Your task to perform on an android device: Search for good Italian restaurants Image 0: 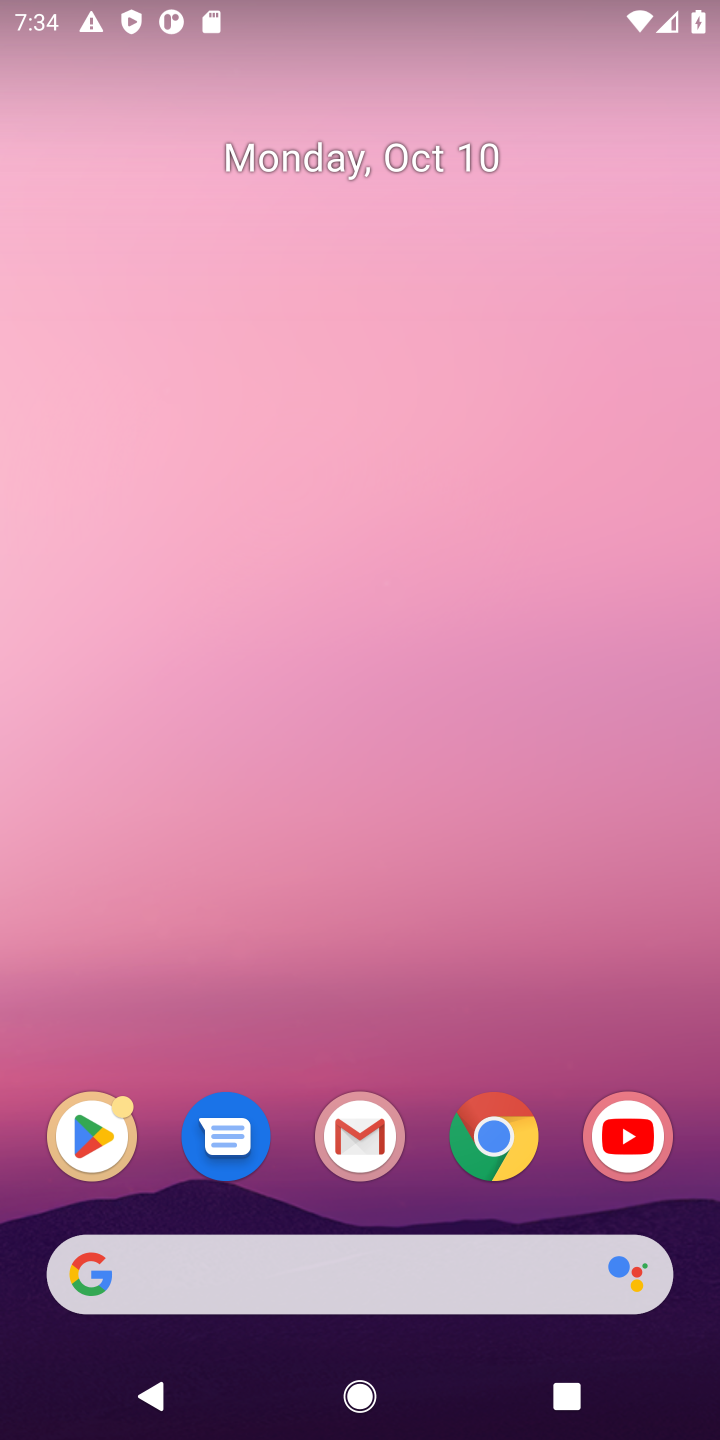
Step 0: drag from (379, 1109) to (316, 129)
Your task to perform on an android device: Search for good Italian restaurants Image 1: 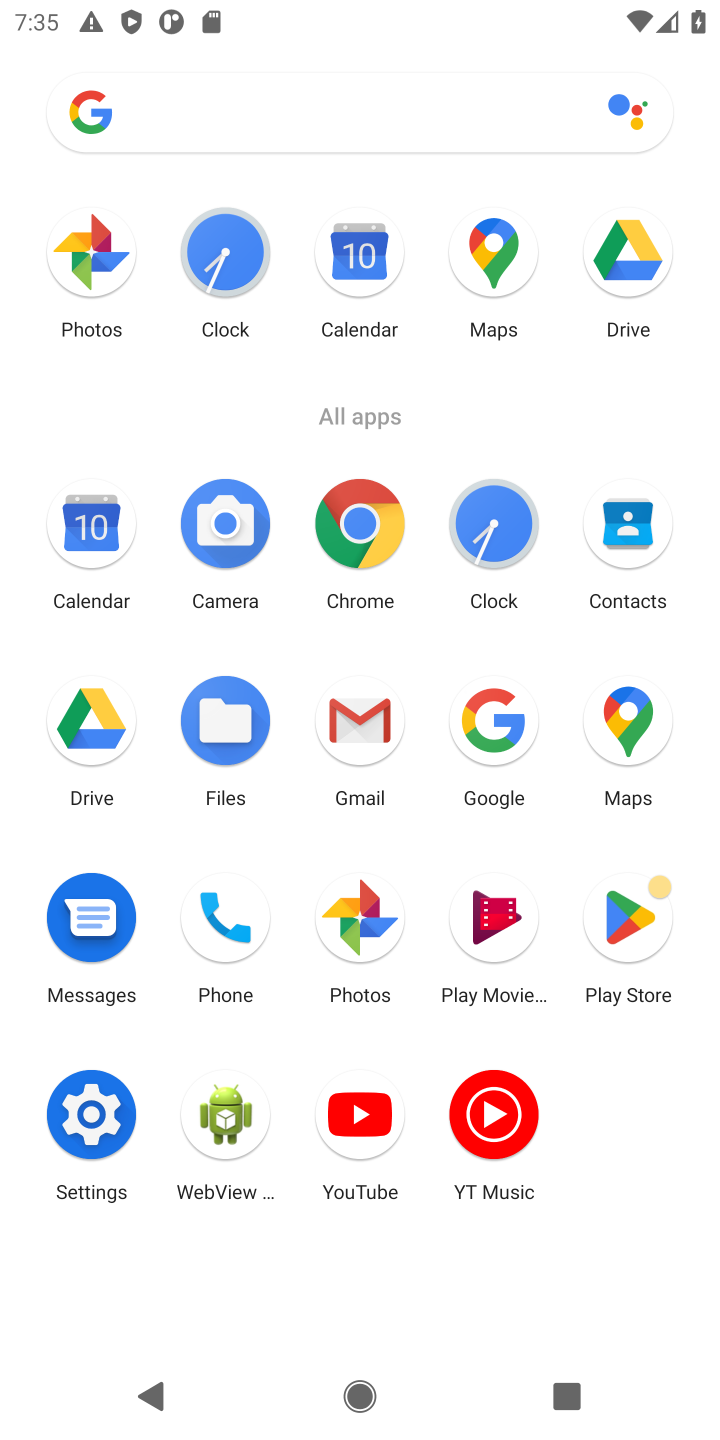
Step 1: click (498, 725)
Your task to perform on an android device: Search for good Italian restaurants Image 2: 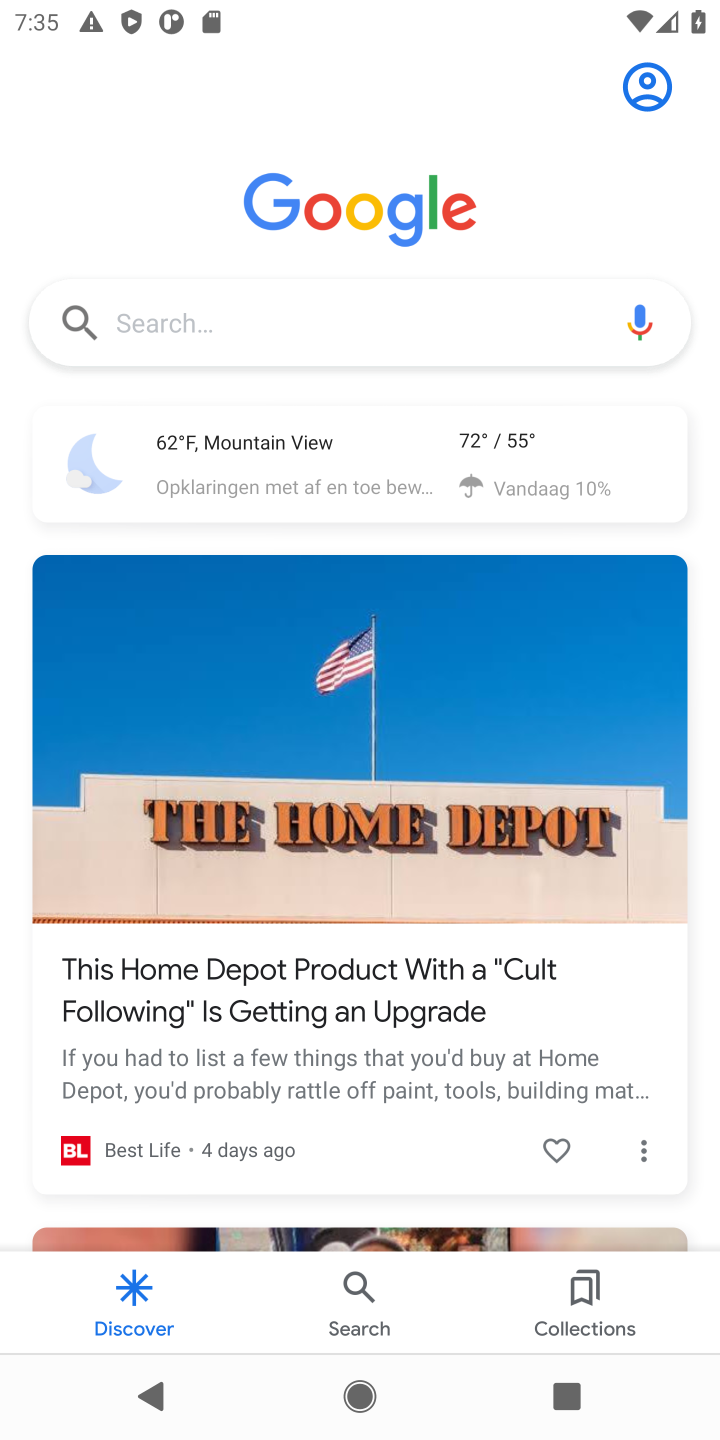
Step 2: click (325, 320)
Your task to perform on an android device: Search for good Italian restaurants Image 3: 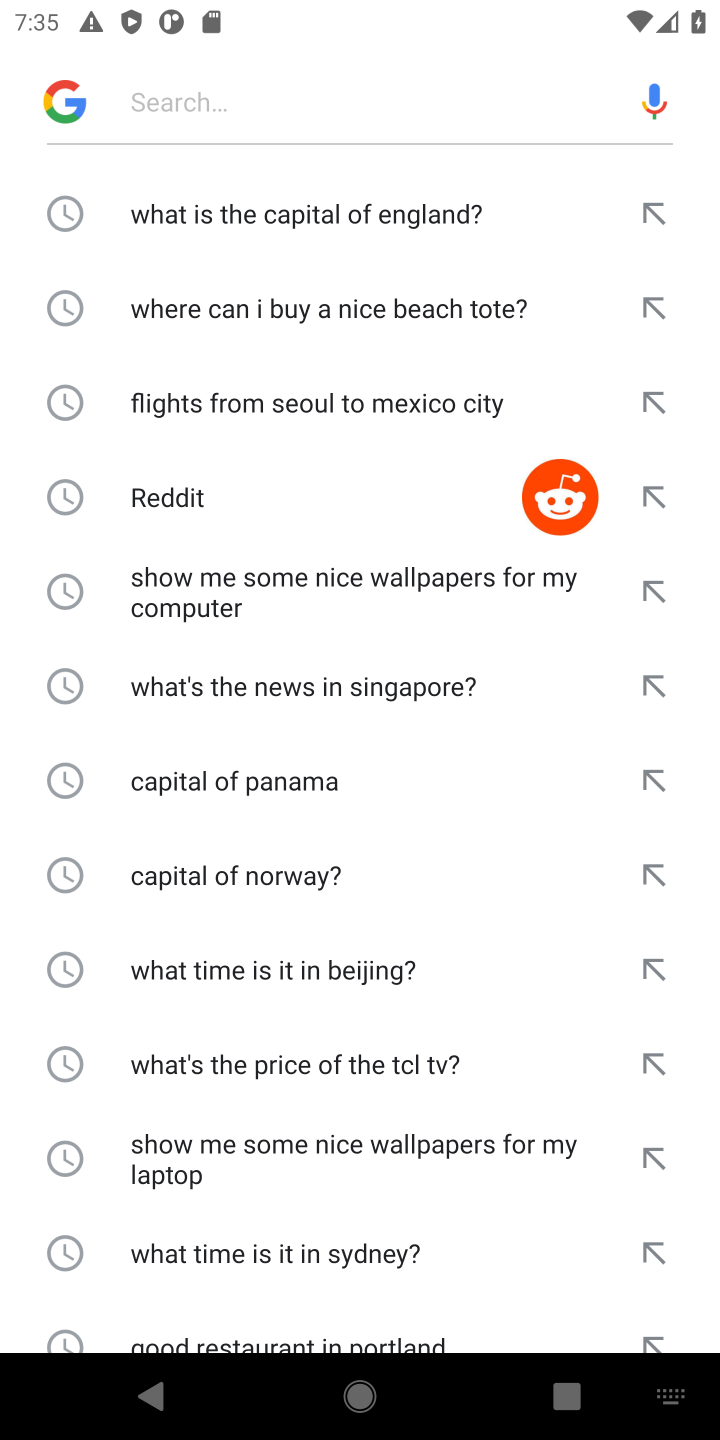
Step 3: type "good Italian restaurants"
Your task to perform on an android device: Search for good Italian restaurants Image 4: 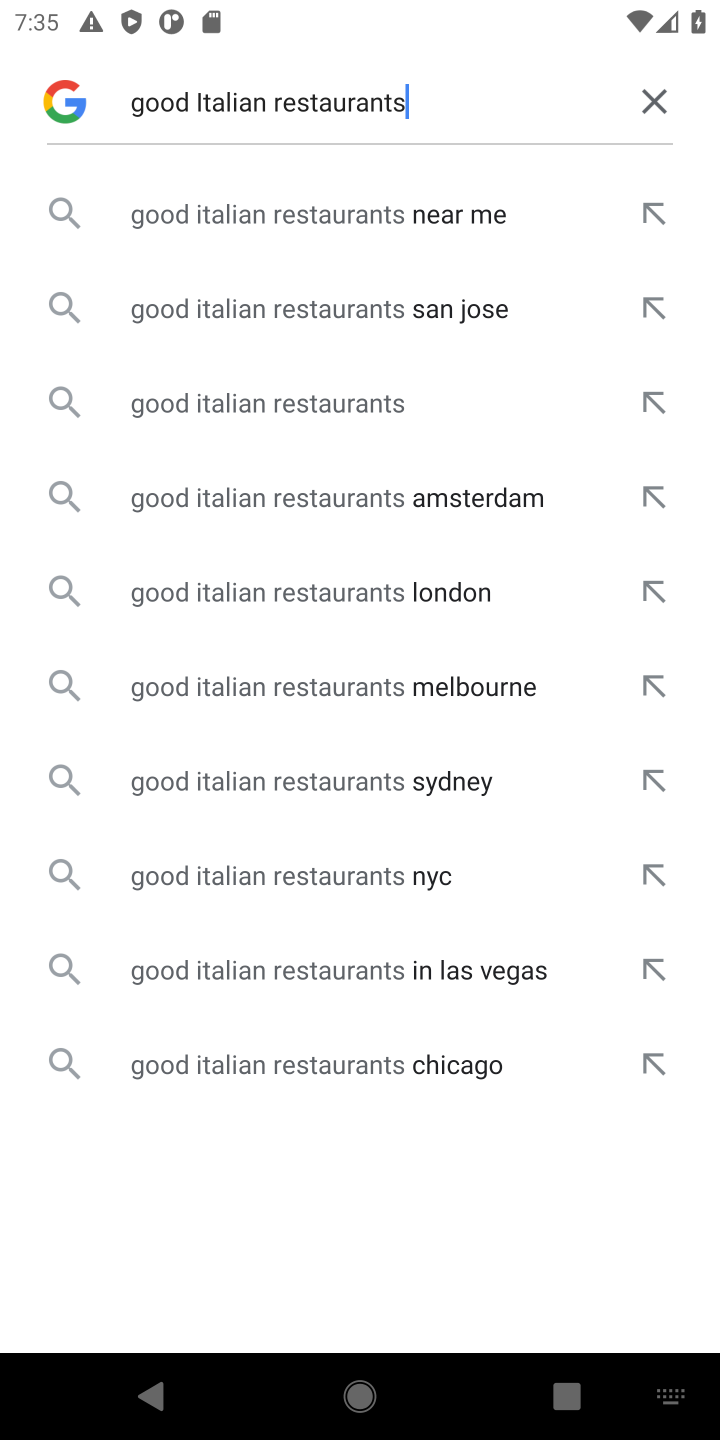
Step 4: click (273, 402)
Your task to perform on an android device: Search for good Italian restaurants Image 5: 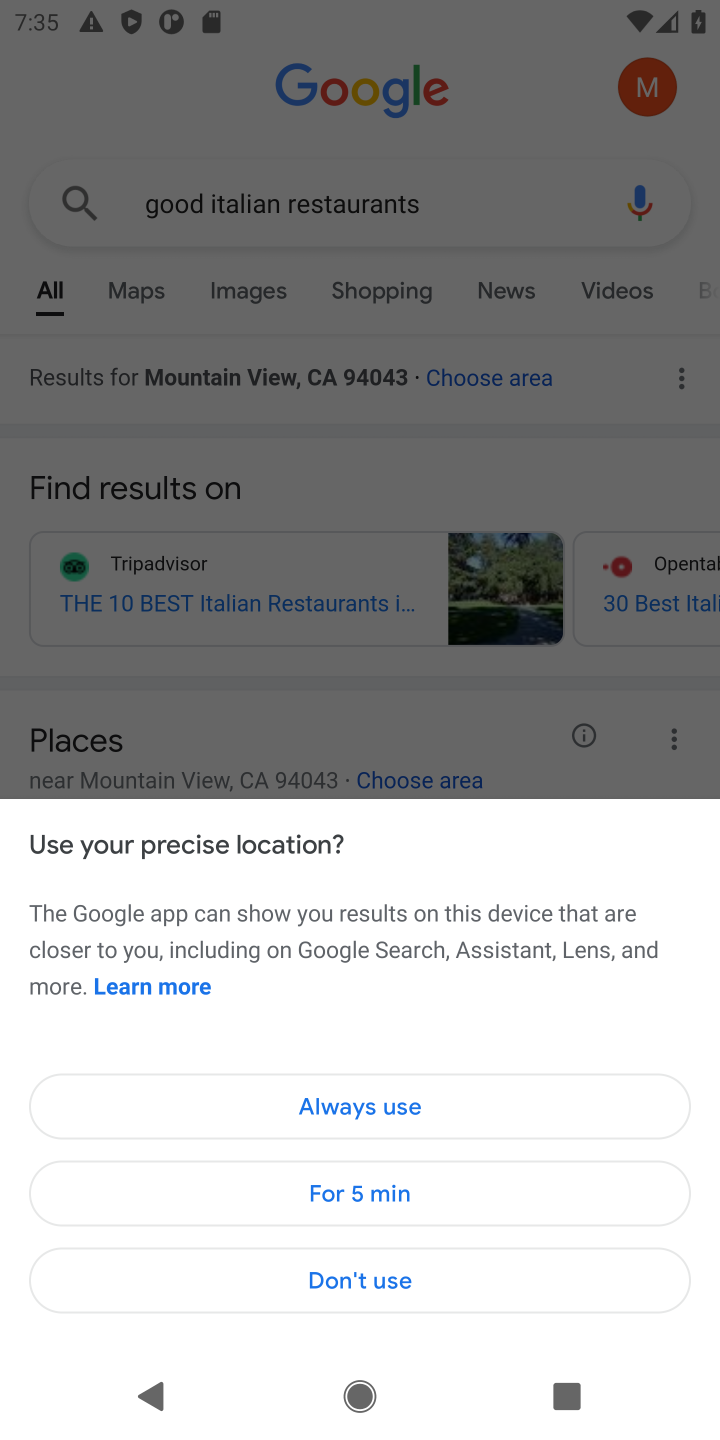
Step 5: click (394, 1274)
Your task to perform on an android device: Search for good Italian restaurants Image 6: 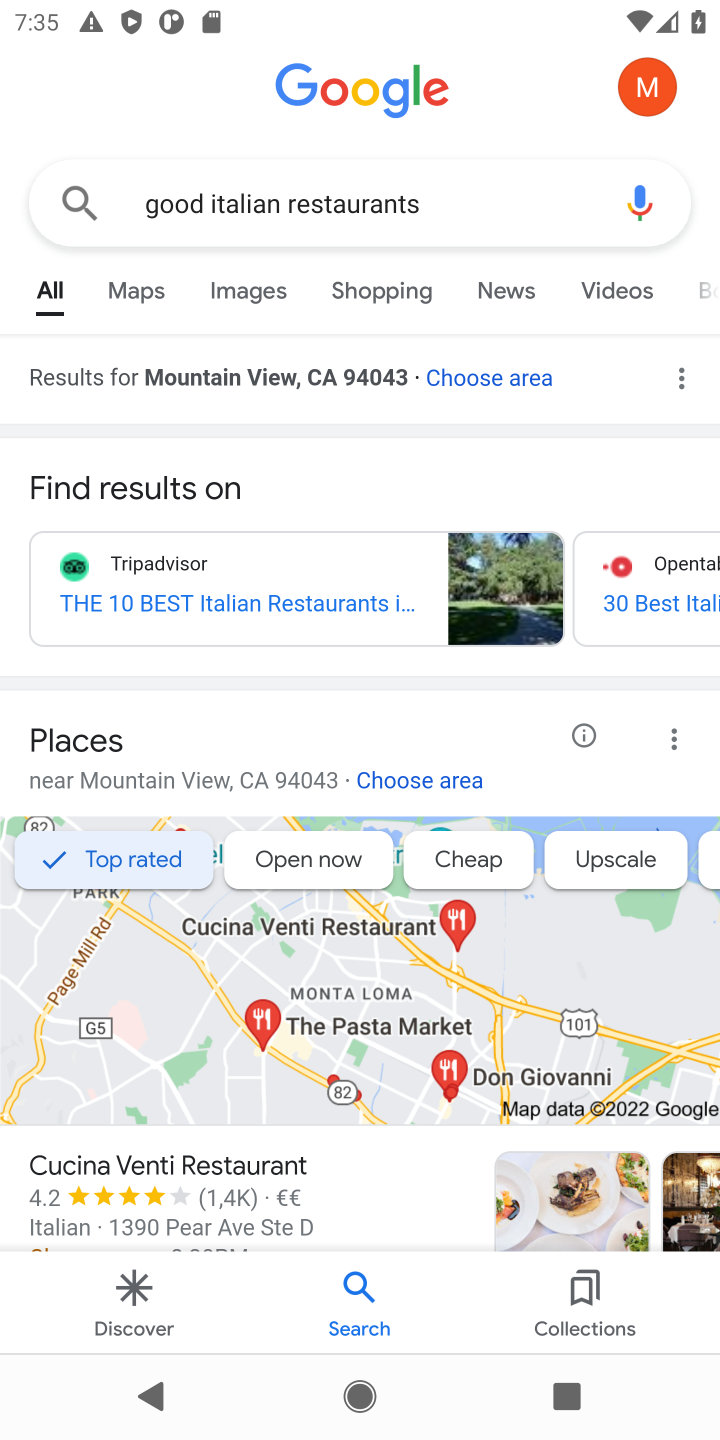
Step 6: task complete